Your task to perform on an android device: Go to CNN.com Image 0: 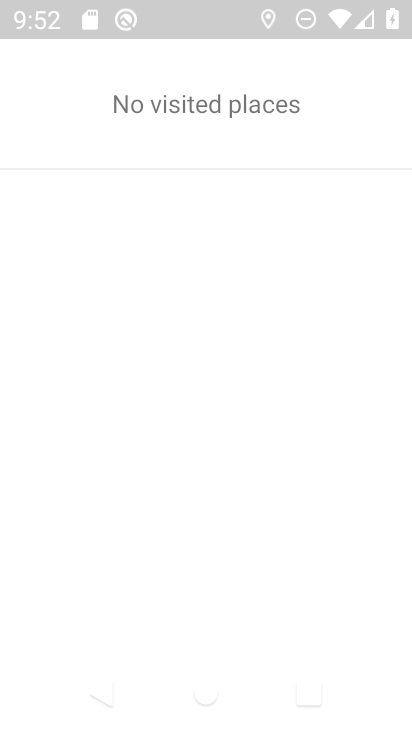
Step 0: press home button
Your task to perform on an android device: Go to CNN.com Image 1: 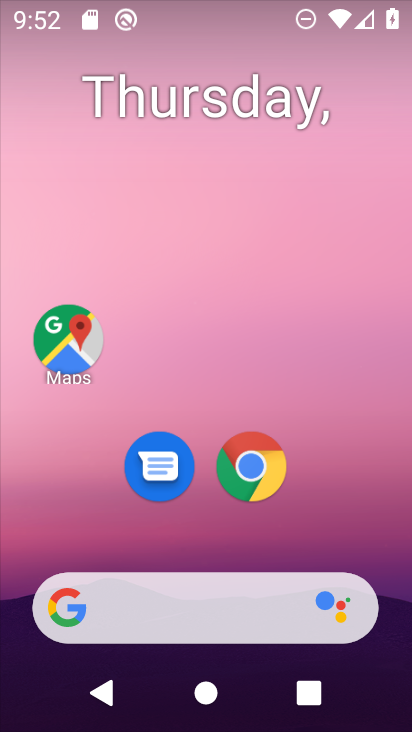
Step 1: drag from (222, 606) to (270, 70)
Your task to perform on an android device: Go to CNN.com Image 2: 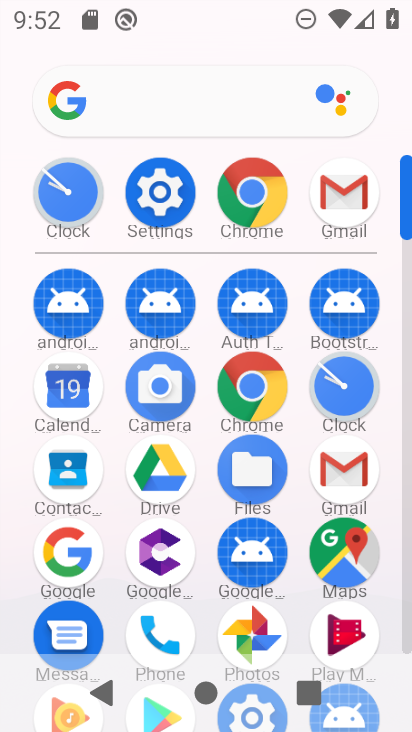
Step 2: click (247, 391)
Your task to perform on an android device: Go to CNN.com Image 3: 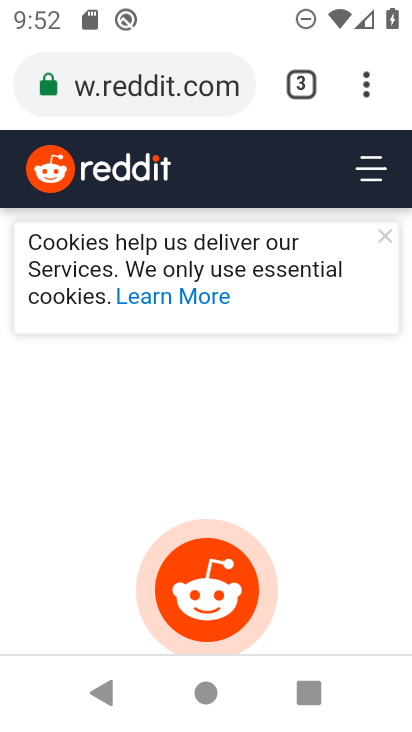
Step 3: click (193, 104)
Your task to perform on an android device: Go to CNN.com Image 4: 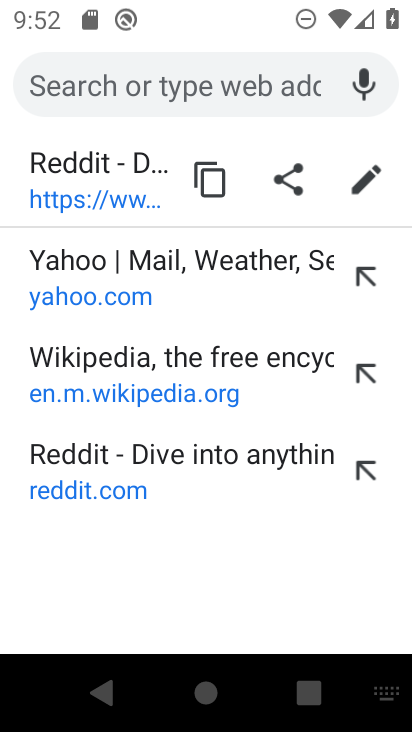
Step 4: type "cnn.com"
Your task to perform on an android device: Go to CNN.com Image 5: 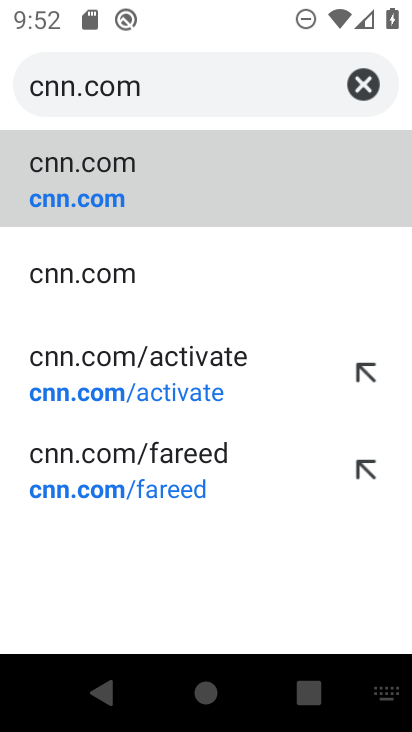
Step 5: click (114, 200)
Your task to perform on an android device: Go to CNN.com Image 6: 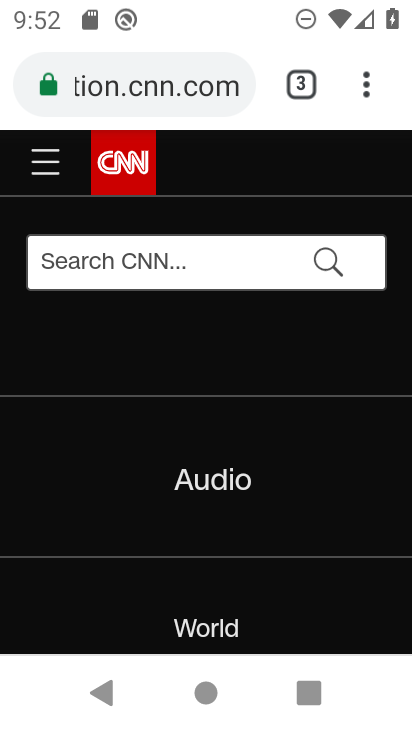
Step 6: task complete